Your task to perform on an android device: stop showing notifications on the lock screen Image 0: 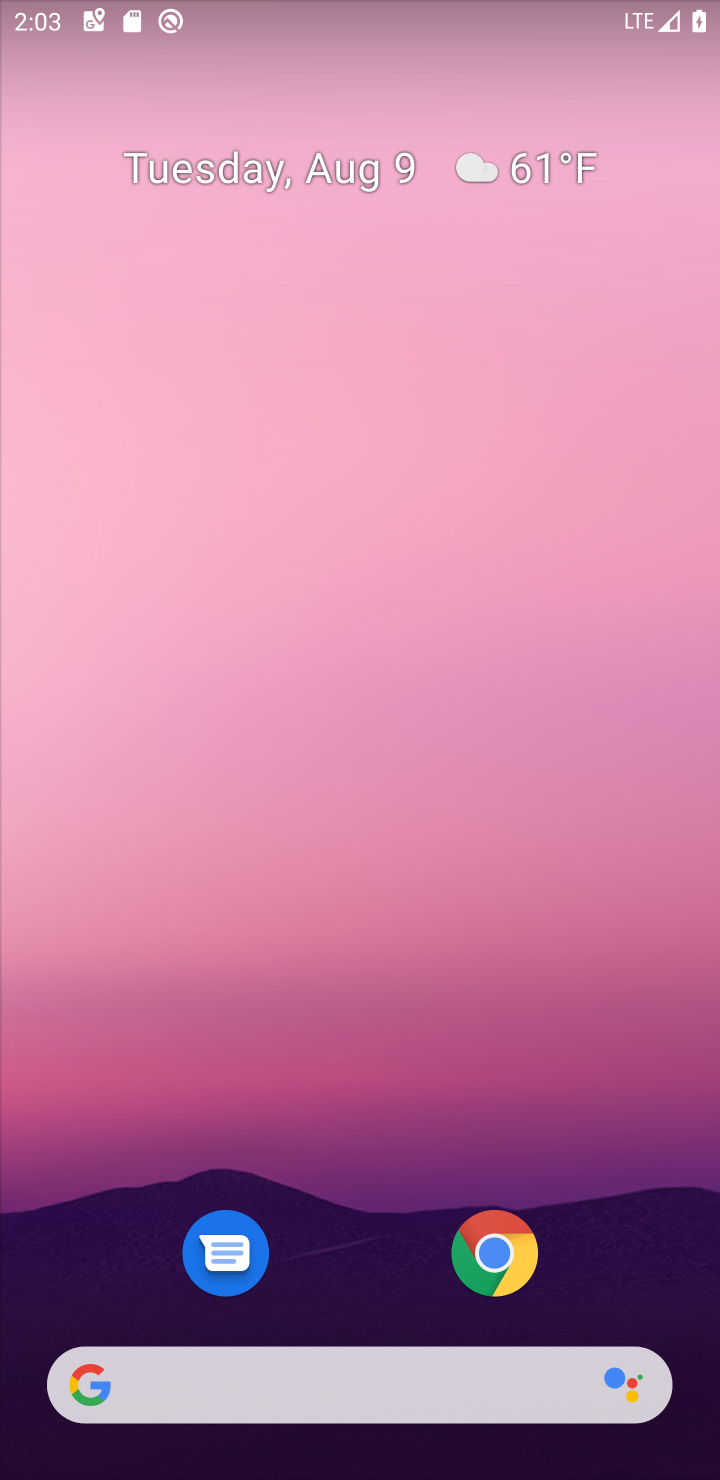
Step 0: drag from (593, 1297) to (355, 5)
Your task to perform on an android device: stop showing notifications on the lock screen Image 1: 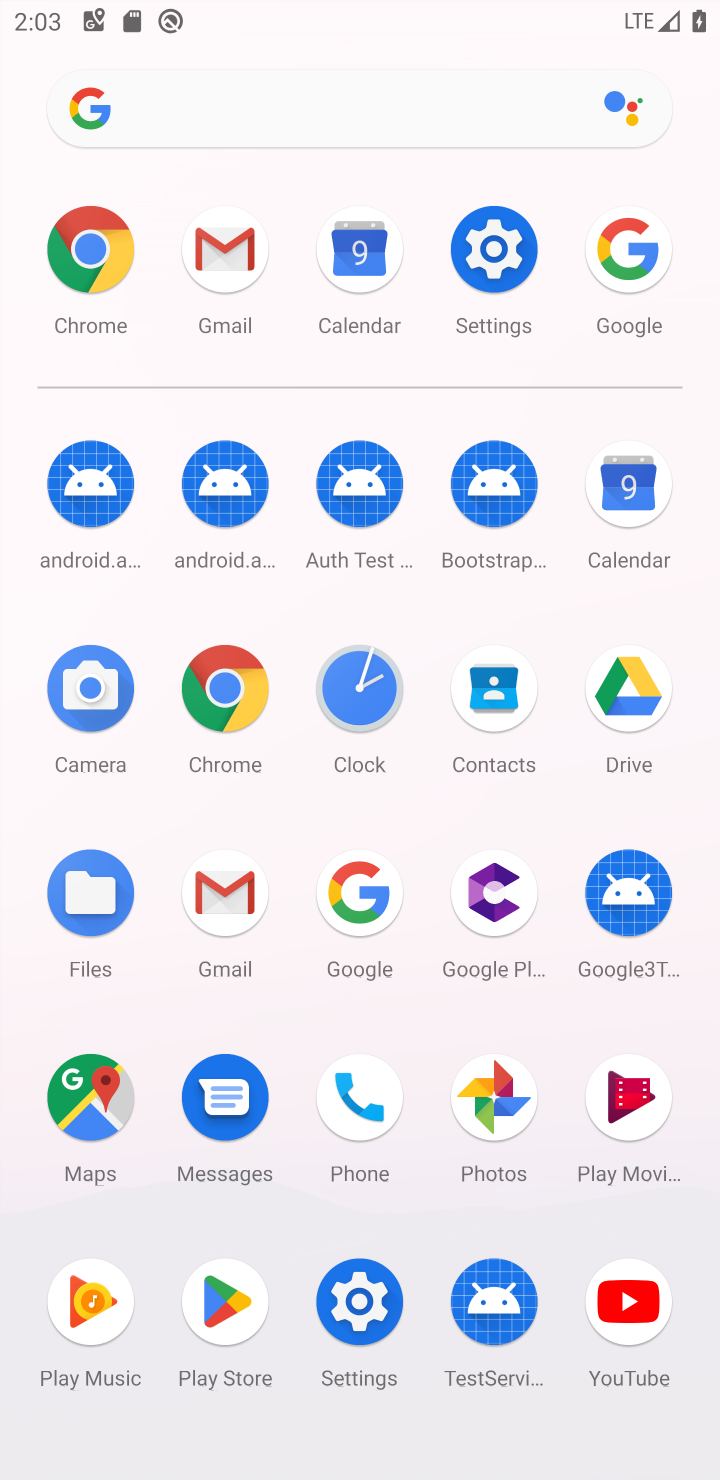
Step 1: click (351, 1317)
Your task to perform on an android device: stop showing notifications on the lock screen Image 2: 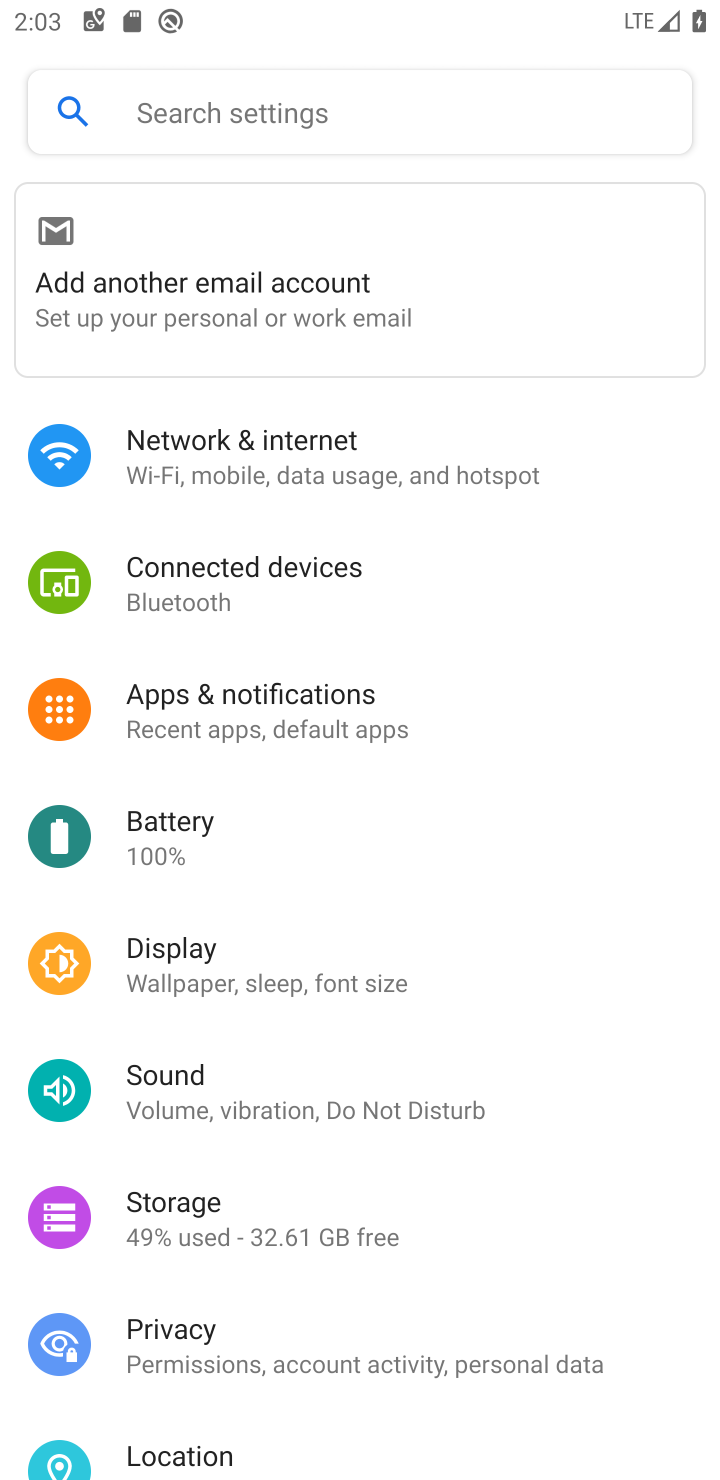
Step 2: click (398, 738)
Your task to perform on an android device: stop showing notifications on the lock screen Image 3: 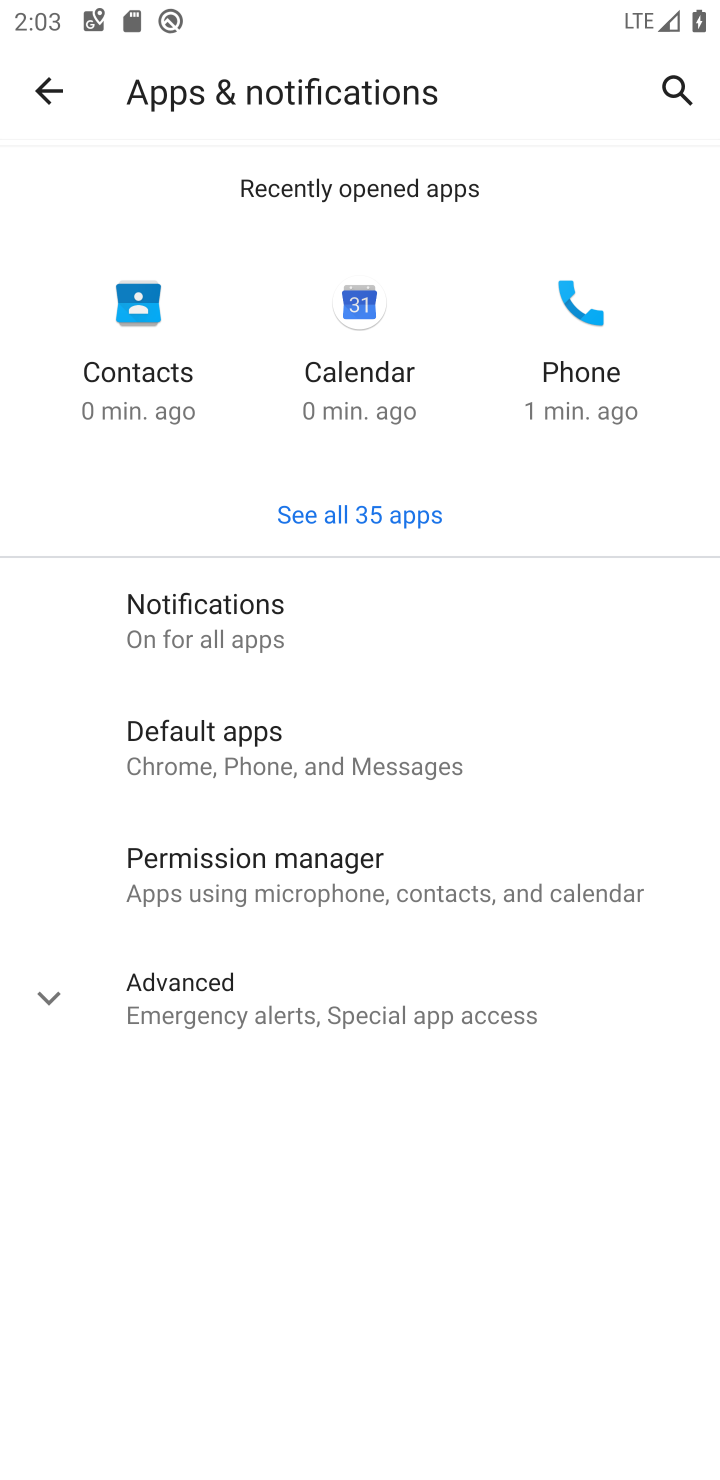
Step 3: click (130, 634)
Your task to perform on an android device: stop showing notifications on the lock screen Image 4: 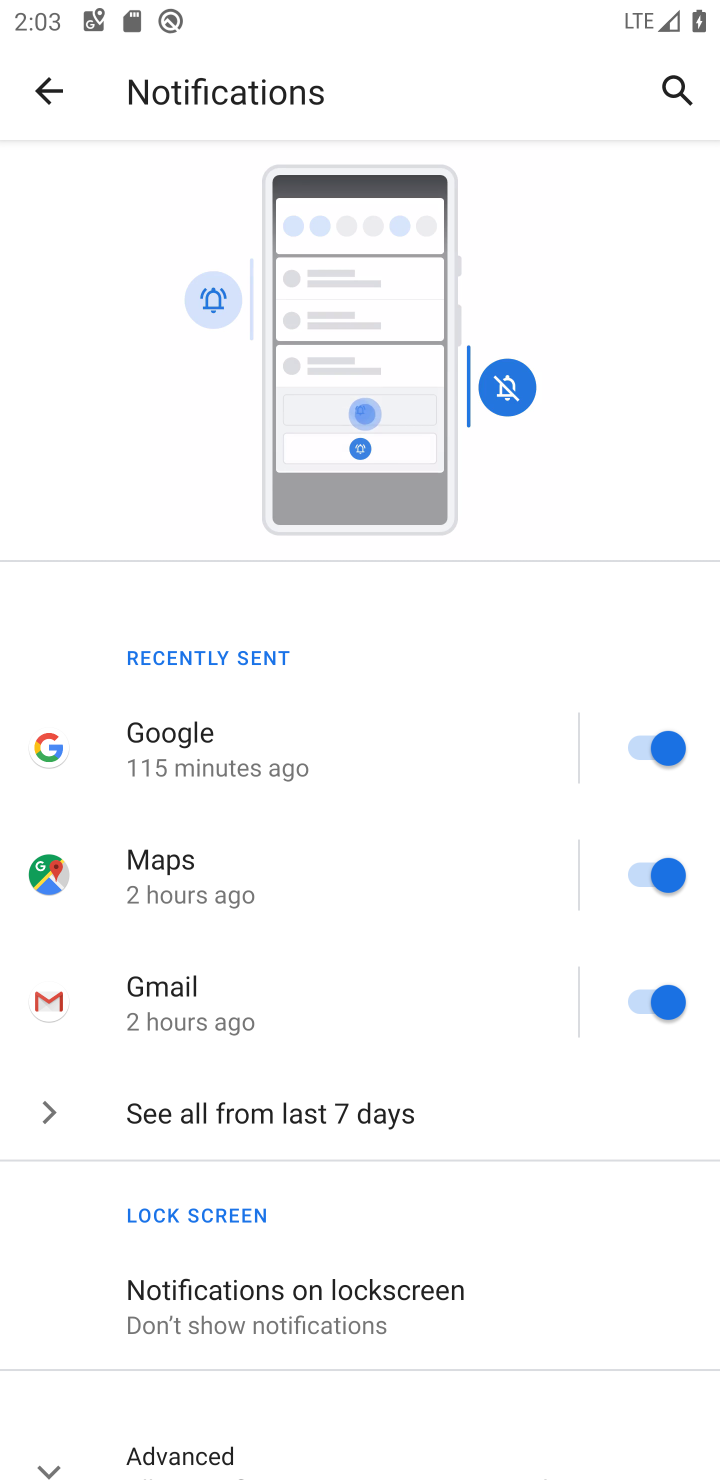
Step 4: click (260, 1286)
Your task to perform on an android device: stop showing notifications on the lock screen Image 5: 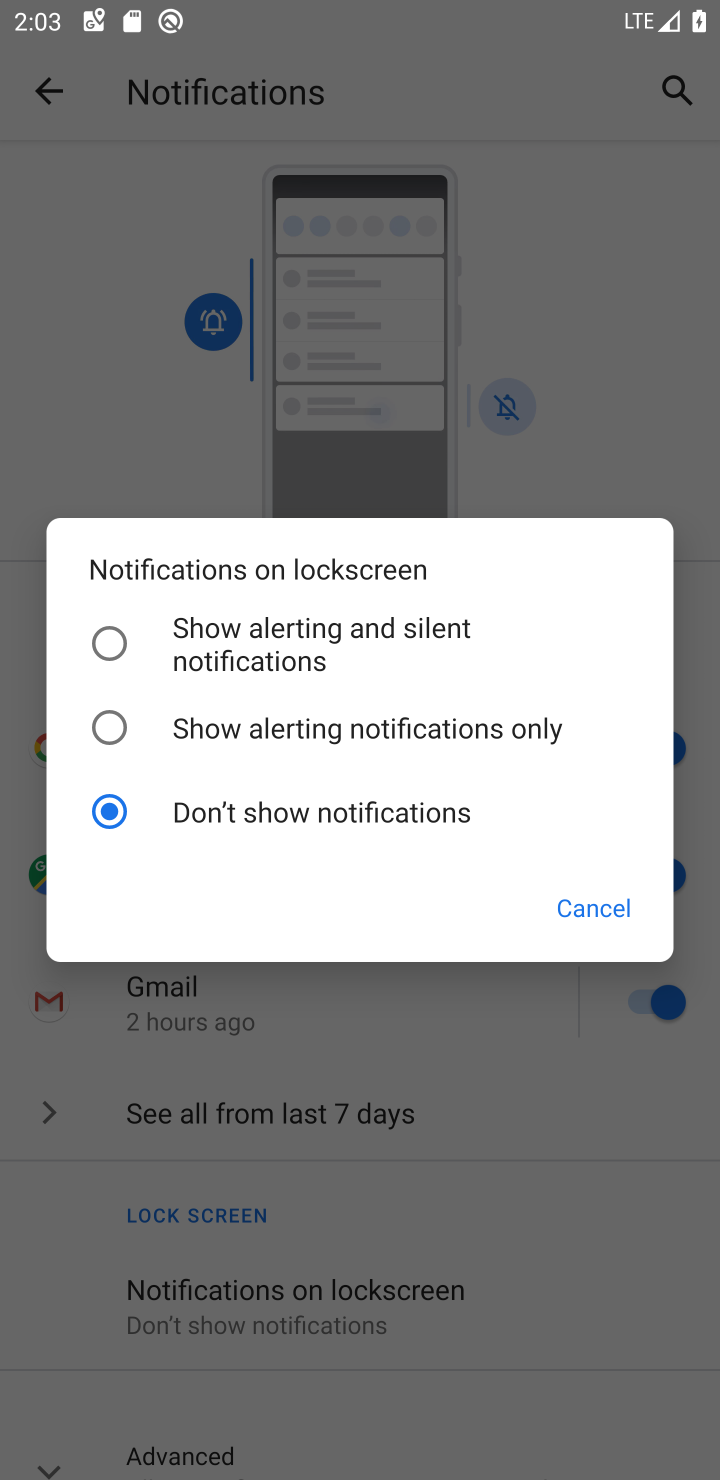
Step 5: task complete